Your task to perform on an android device: Do I have any events tomorrow? Image 0: 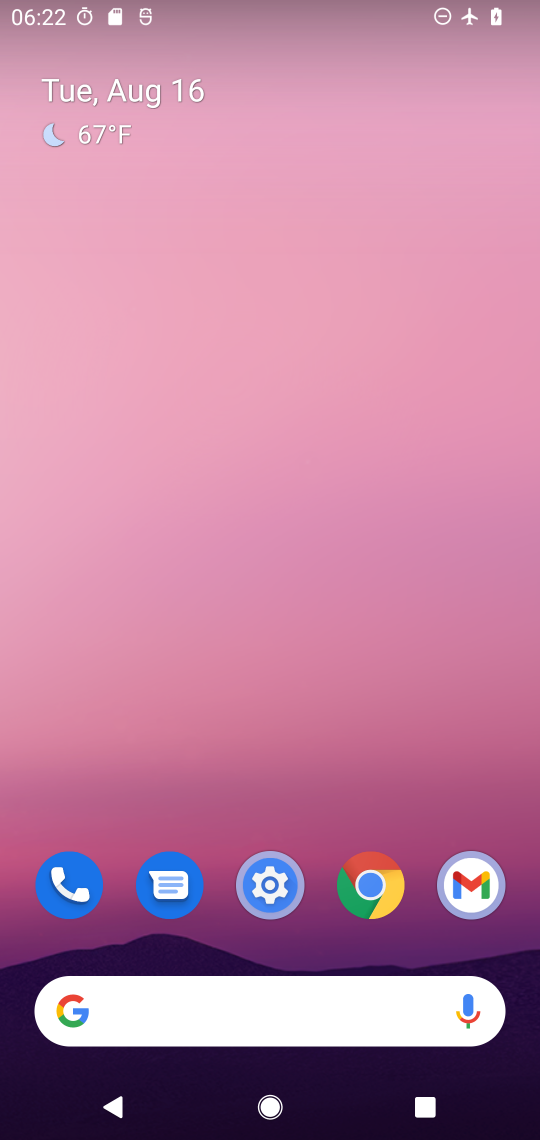
Step 0: drag from (306, 958) to (233, 260)
Your task to perform on an android device: Do I have any events tomorrow? Image 1: 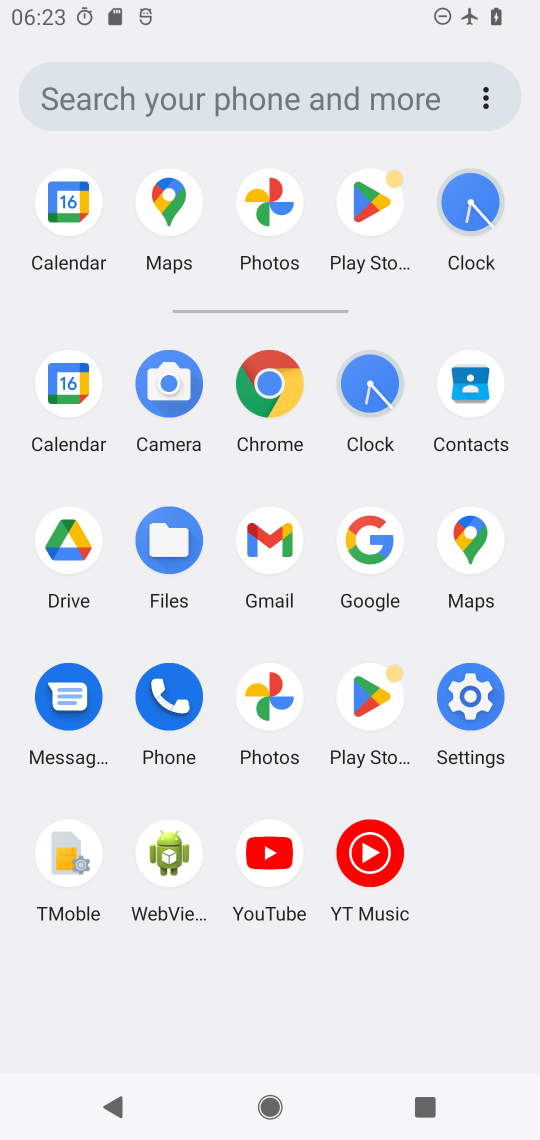
Step 1: click (74, 397)
Your task to perform on an android device: Do I have any events tomorrow? Image 2: 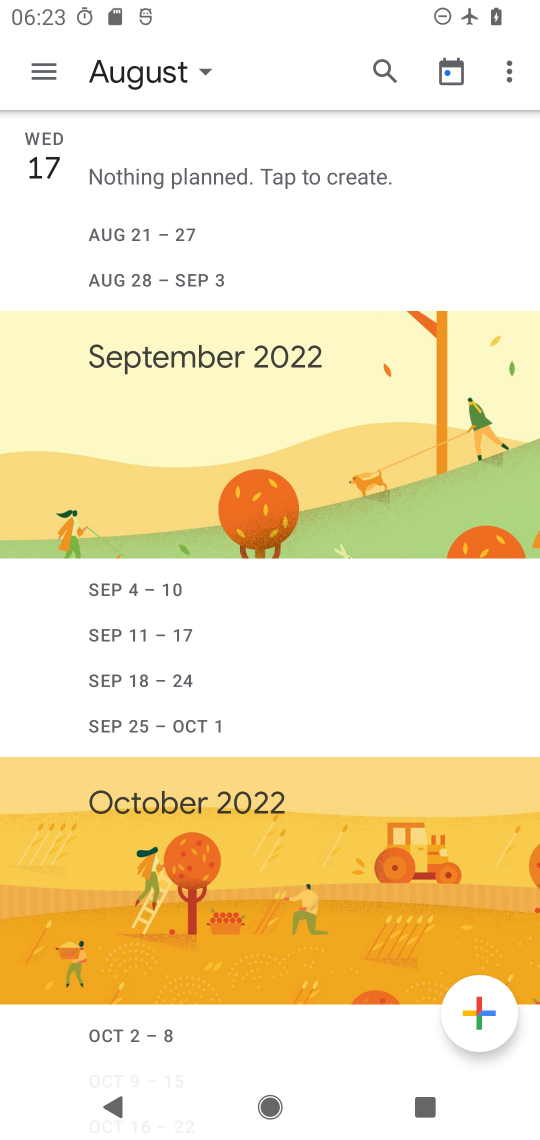
Step 2: task complete